Your task to perform on an android device: Open Yahoo.com Image 0: 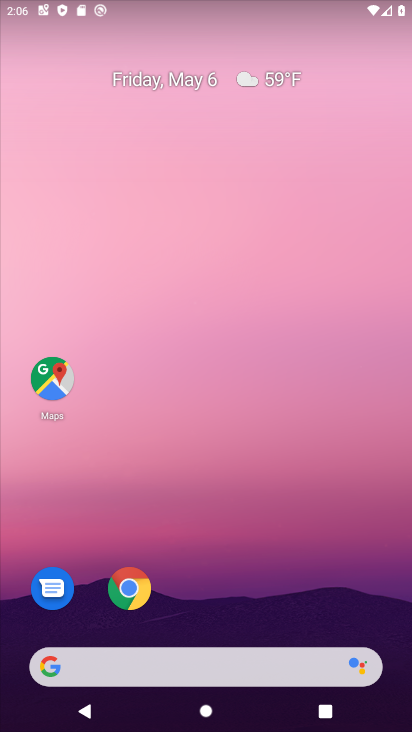
Step 0: click (135, 589)
Your task to perform on an android device: Open Yahoo.com Image 1: 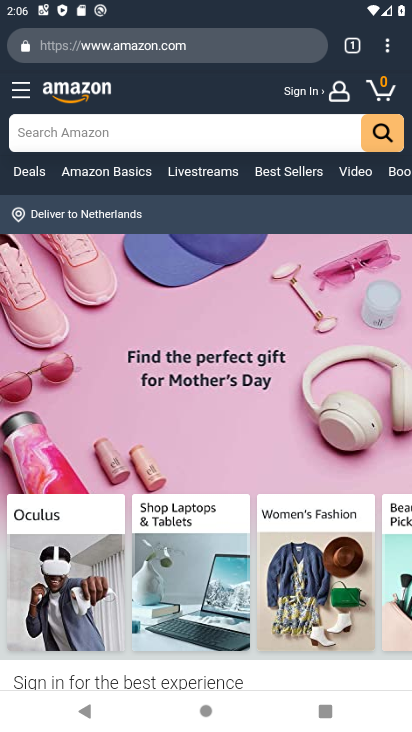
Step 1: click (363, 49)
Your task to perform on an android device: Open Yahoo.com Image 2: 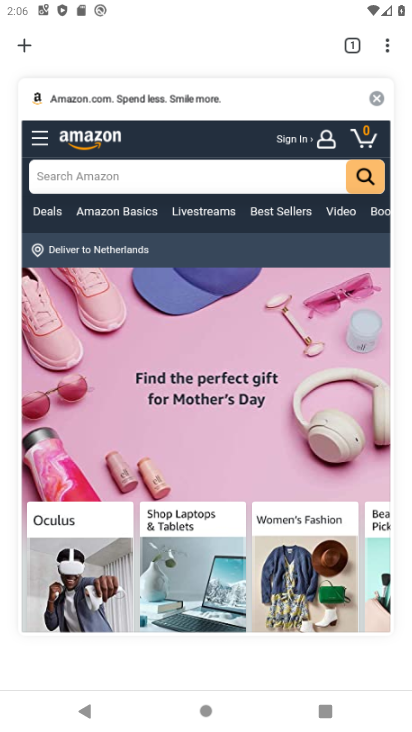
Step 2: click (27, 40)
Your task to perform on an android device: Open Yahoo.com Image 3: 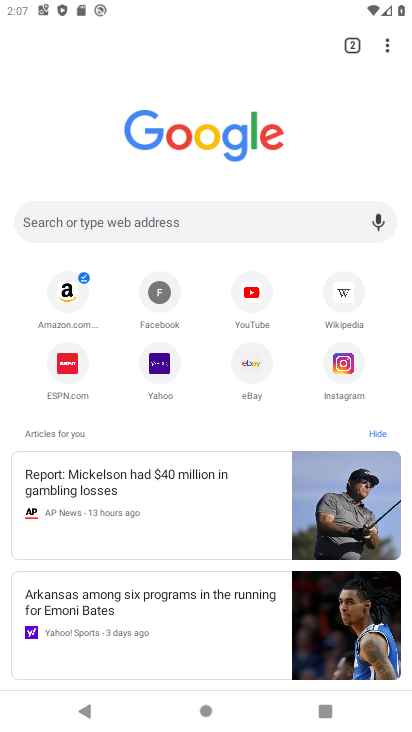
Step 3: click (169, 361)
Your task to perform on an android device: Open Yahoo.com Image 4: 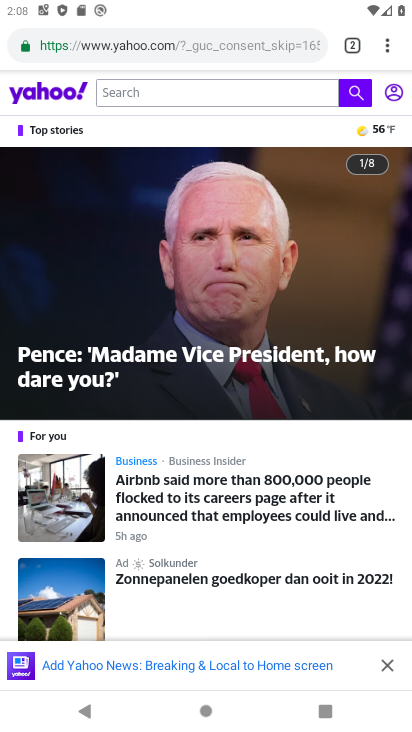
Step 4: task complete